Your task to perform on an android device: open app "Yahoo Mail" Image 0: 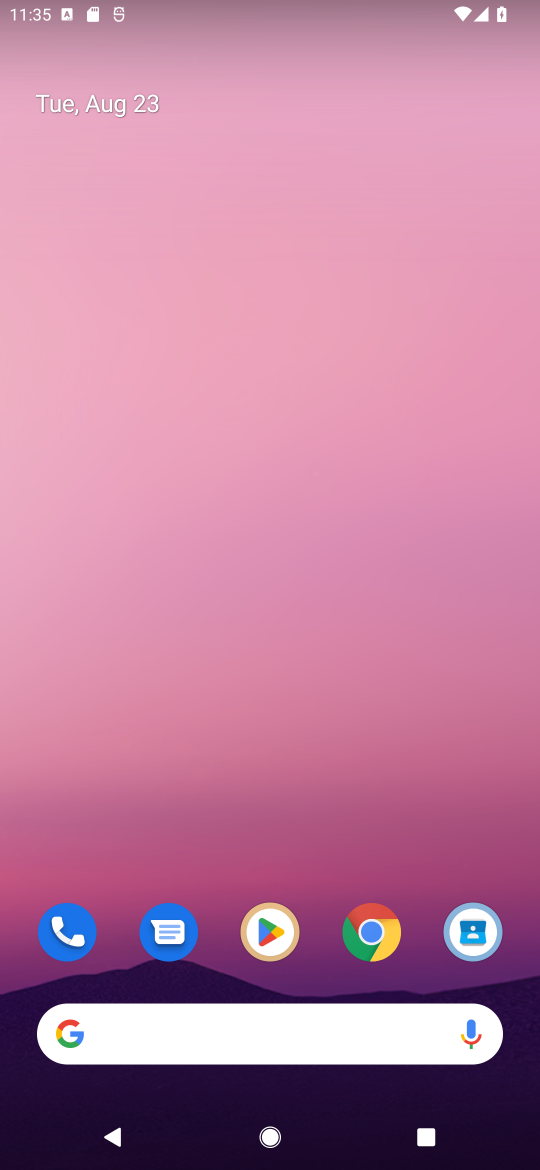
Step 0: click (278, 913)
Your task to perform on an android device: open app "Yahoo Mail" Image 1: 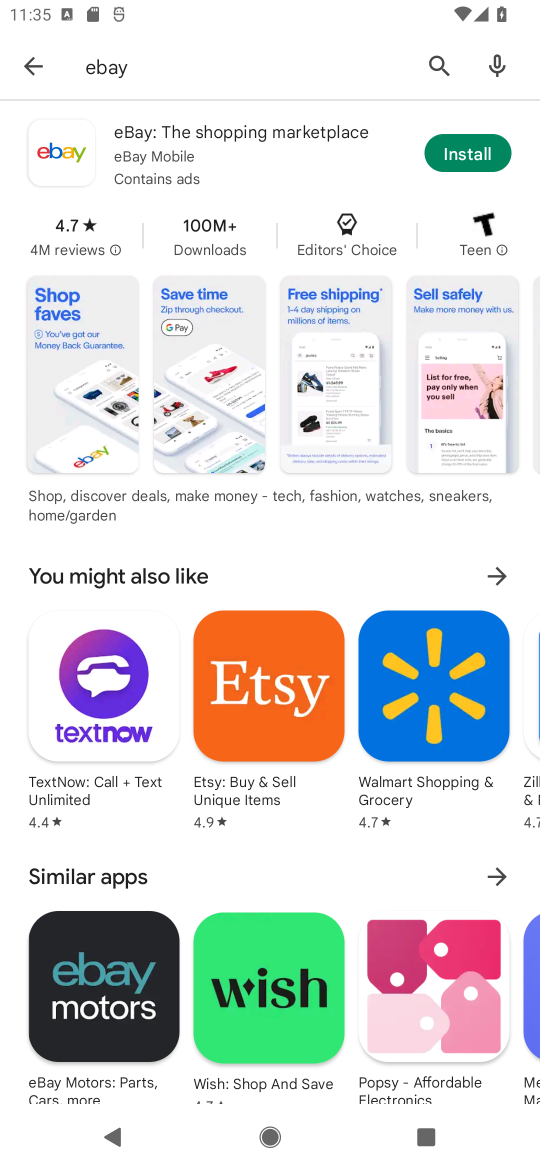
Step 1: click (430, 63)
Your task to perform on an android device: open app "Yahoo Mail" Image 2: 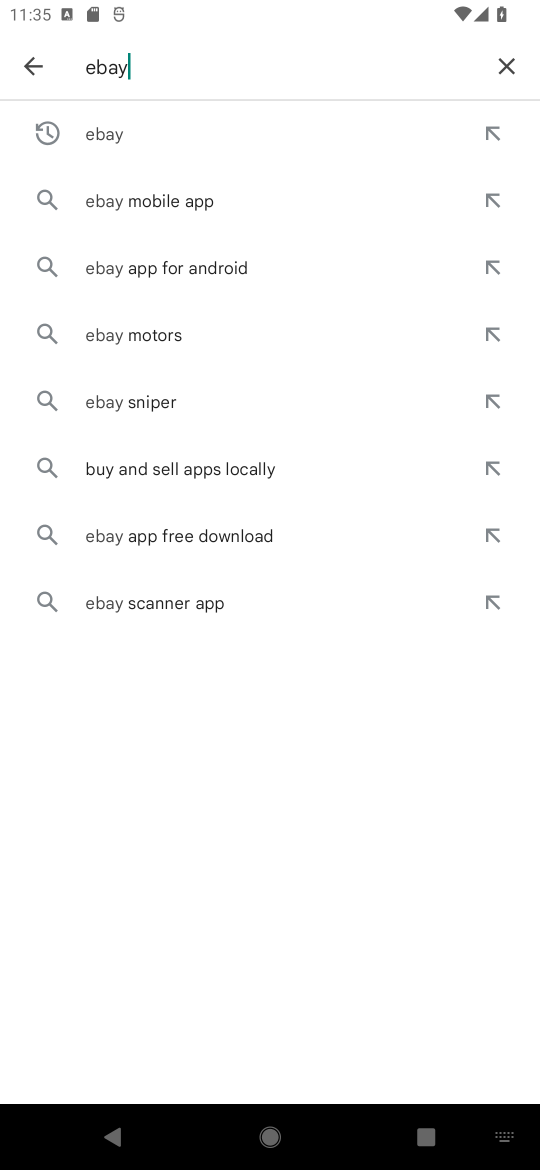
Step 2: click (519, 54)
Your task to perform on an android device: open app "Yahoo Mail" Image 3: 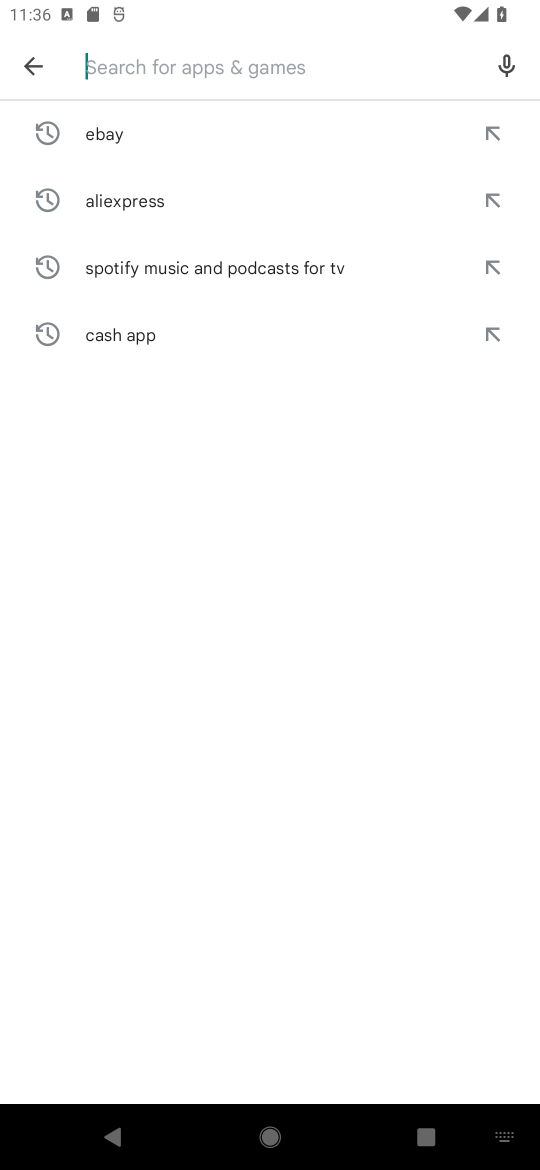
Step 3: click (170, 65)
Your task to perform on an android device: open app "Yahoo Mail" Image 4: 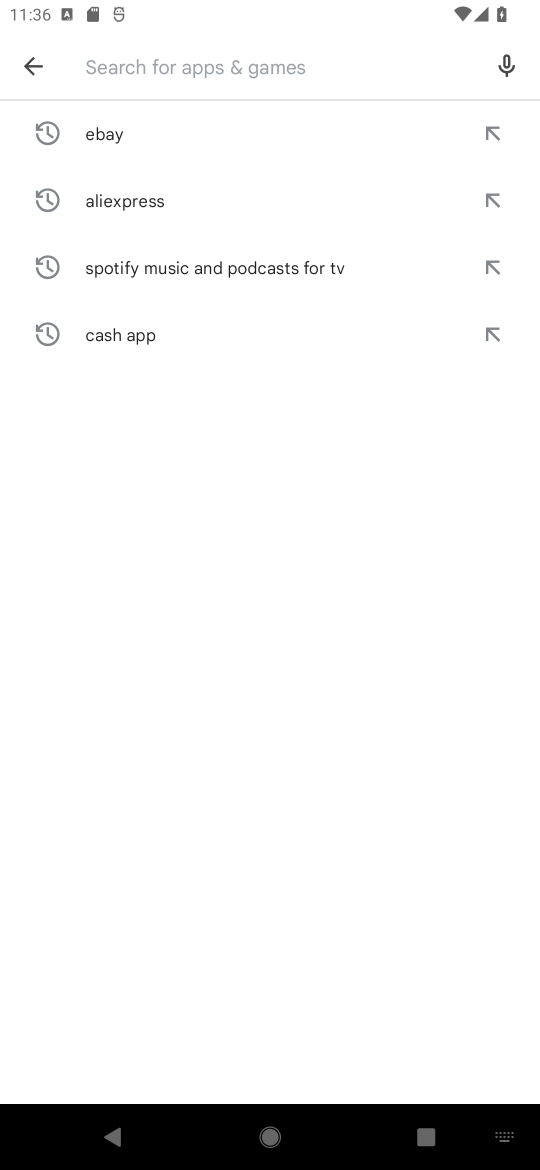
Step 4: type "Yahoo Mail"
Your task to perform on an android device: open app "Yahoo Mail" Image 5: 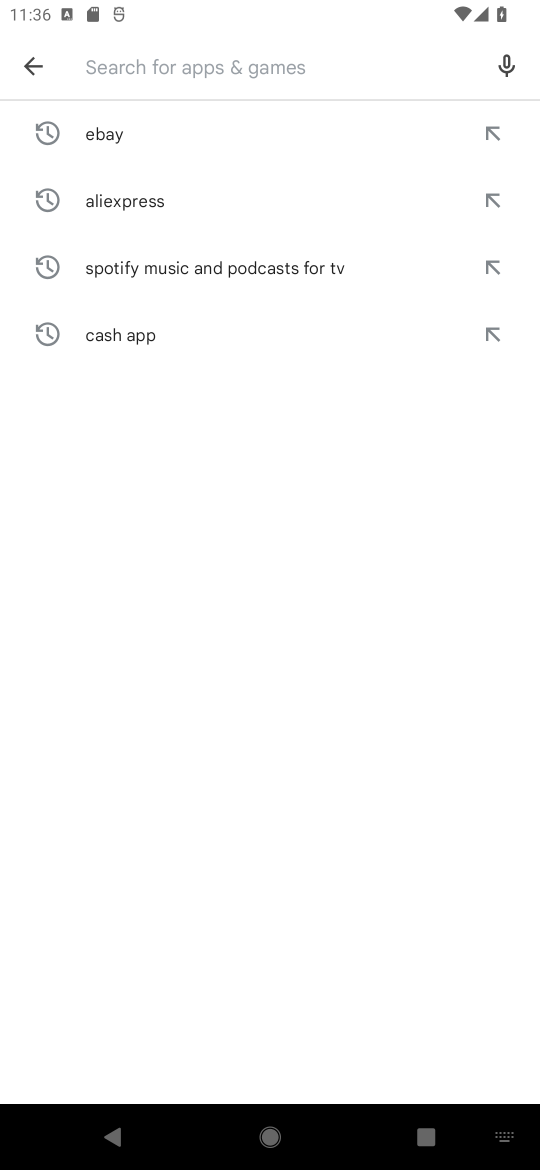
Step 5: click (371, 737)
Your task to perform on an android device: open app "Yahoo Mail" Image 6: 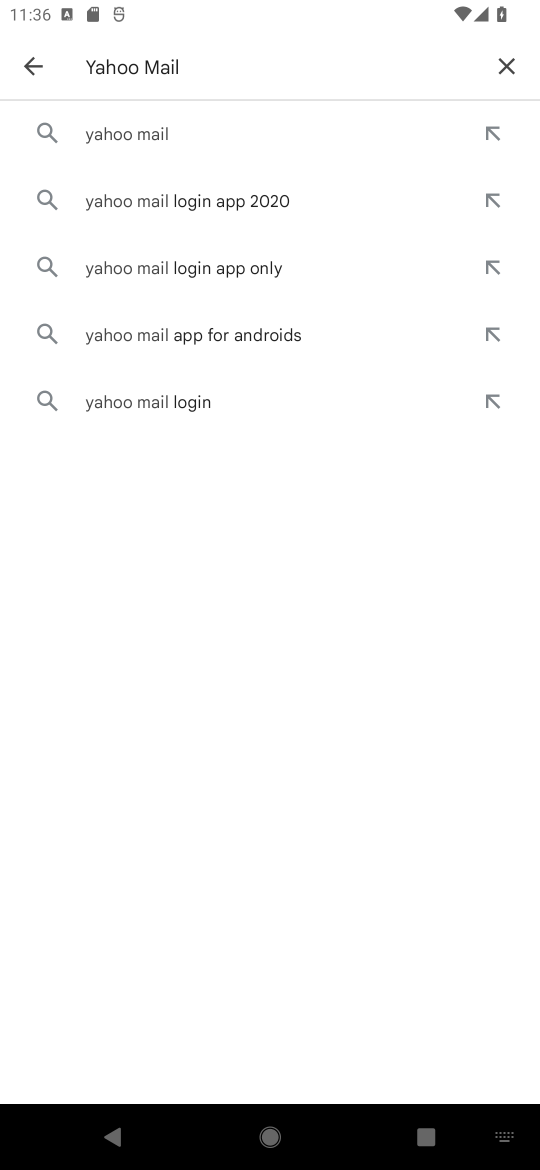
Step 6: click (133, 138)
Your task to perform on an android device: open app "Yahoo Mail" Image 7: 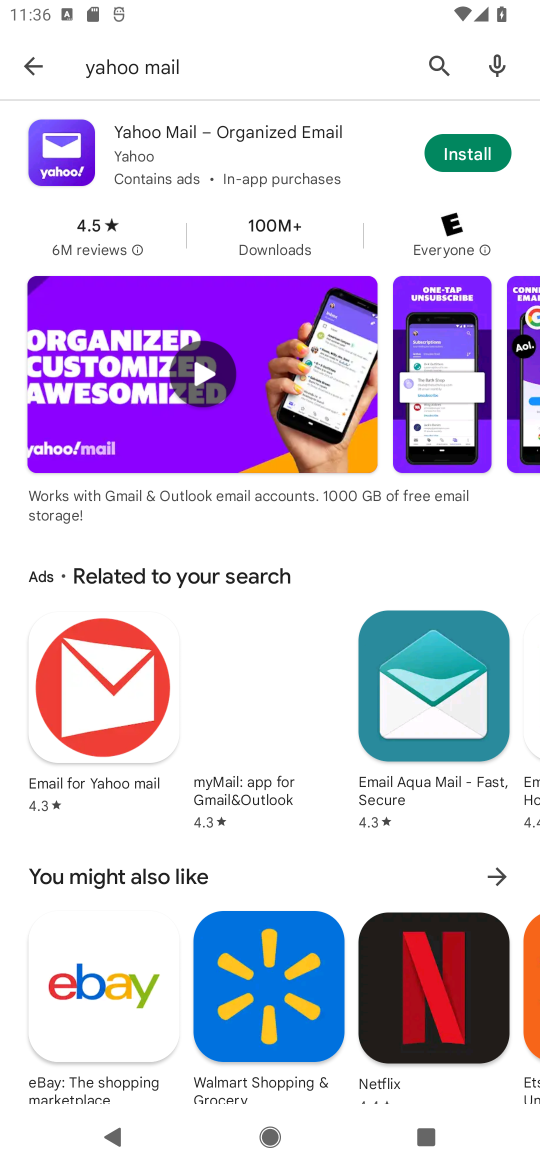
Step 7: click (262, 153)
Your task to perform on an android device: open app "Yahoo Mail" Image 8: 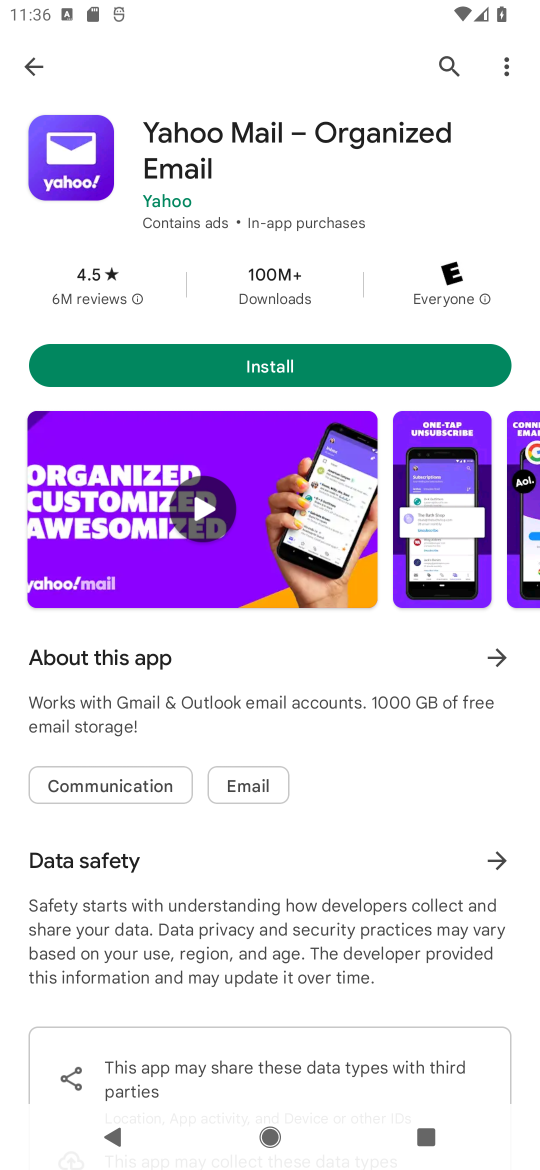
Step 8: task complete